Your task to perform on an android device: What's on my calendar today? Image 0: 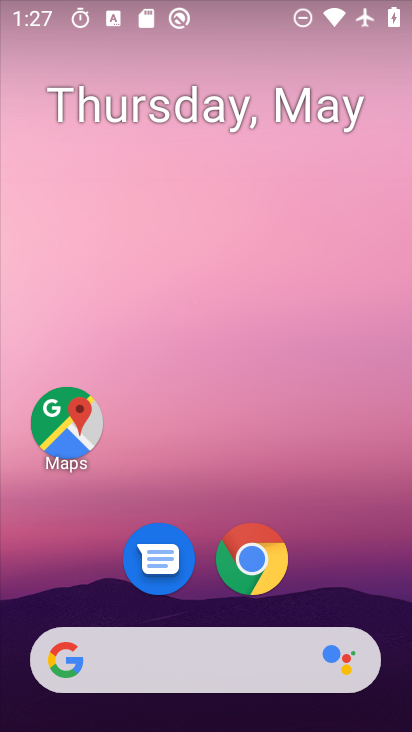
Step 0: drag from (179, 655) to (193, 252)
Your task to perform on an android device: What's on my calendar today? Image 1: 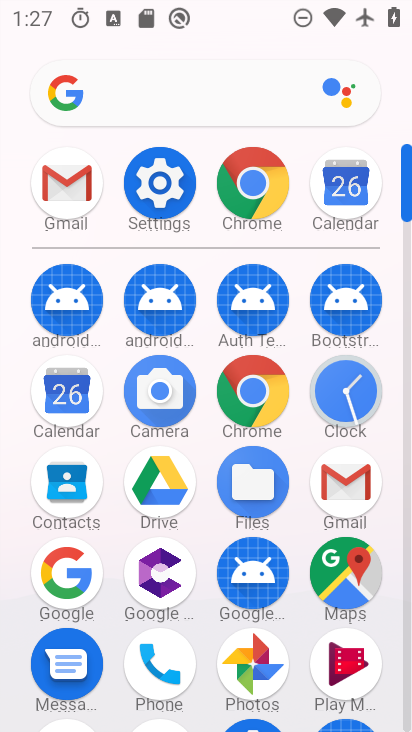
Step 1: click (66, 411)
Your task to perform on an android device: What's on my calendar today? Image 2: 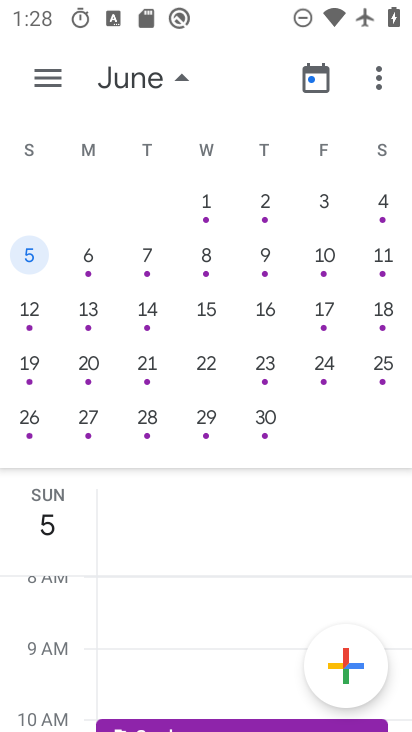
Step 2: drag from (51, 349) to (91, 534)
Your task to perform on an android device: What's on my calendar today? Image 3: 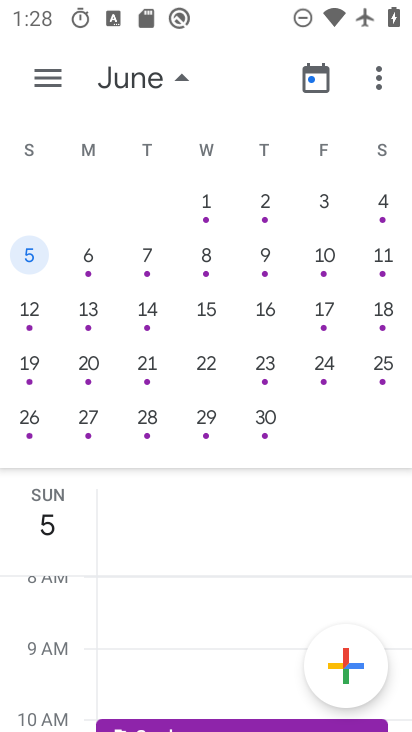
Step 3: drag from (106, 343) to (412, 312)
Your task to perform on an android device: What's on my calendar today? Image 4: 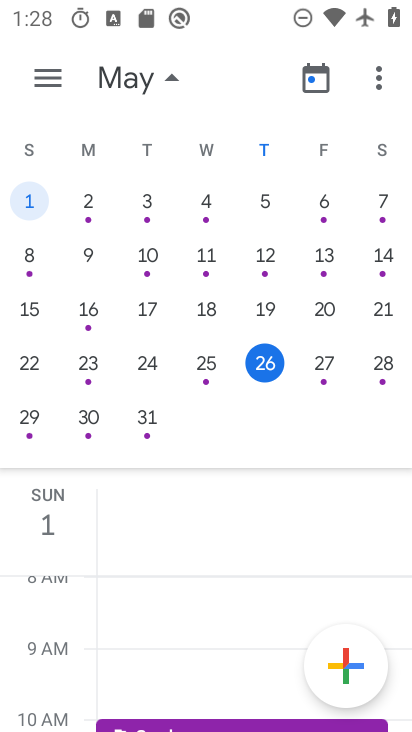
Step 4: drag from (179, 565) to (179, 517)
Your task to perform on an android device: What's on my calendar today? Image 5: 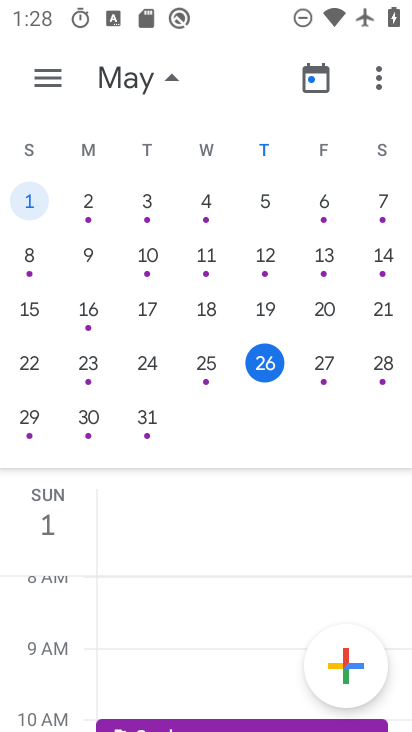
Step 5: click (266, 360)
Your task to perform on an android device: What's on my calendar today? Image 6: 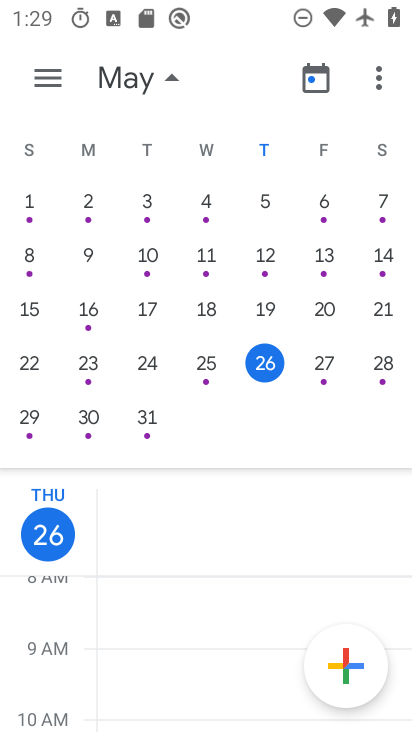
Step 6: task complete